Your task to perform on an android device: Do I have any events this weekend? Image 0: 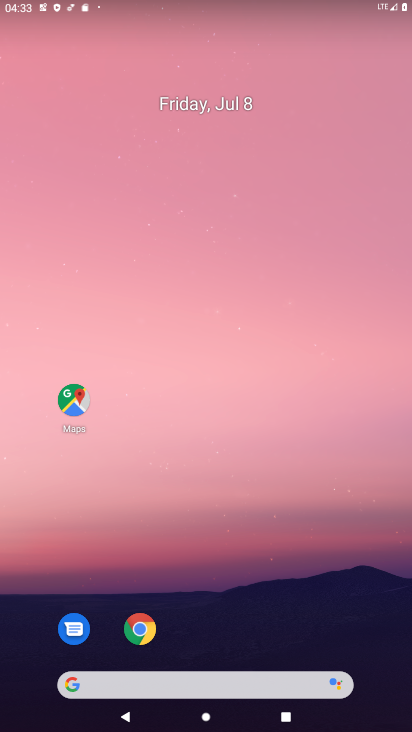
Step 0: drag from (241, 727) to (241, 175)
Your task to perform on an android device: Do I have any events this weekend? Image 1: 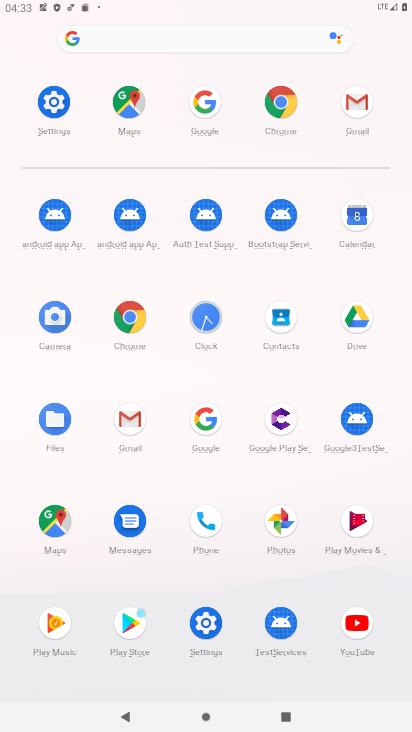
Step 1: click (358, 218)
Your task to perform on an android device: Do I have any events this weekend? Image 2: 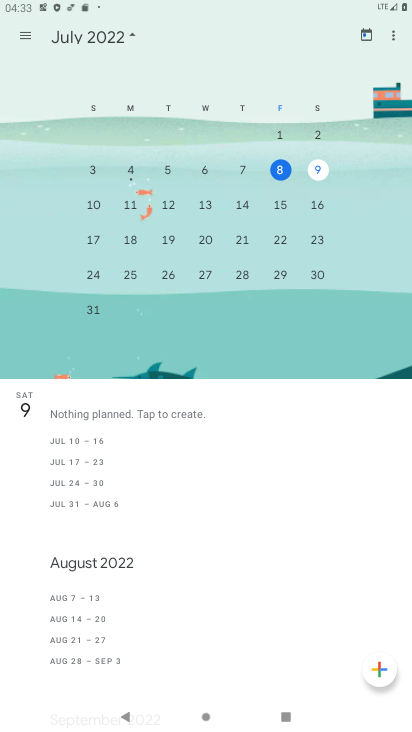
Step 2: click (22, 34)
Your task to perform on an android device: Do I have any events this weekend? Image 3: 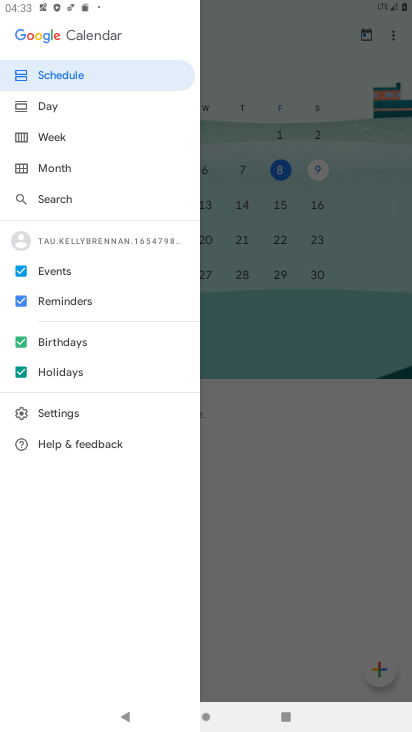
Step 3: click (20, 368)
Your task to perform on an android device: Do I have any events this weekend? Image 4: 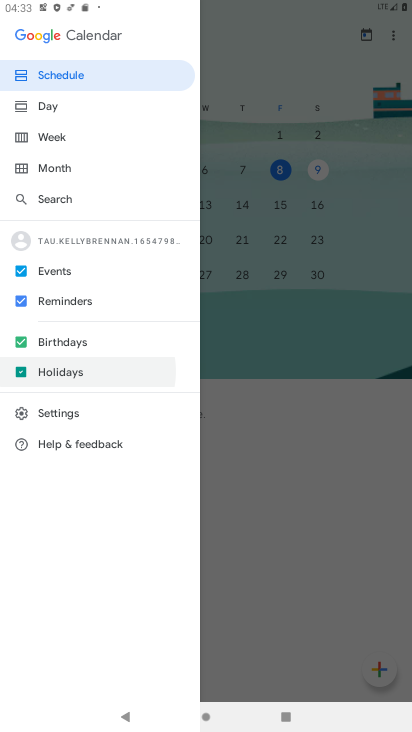
Step 4: click (23, 338)
Your task to perform on an android device: Do I have any events this weekend? Image 5: 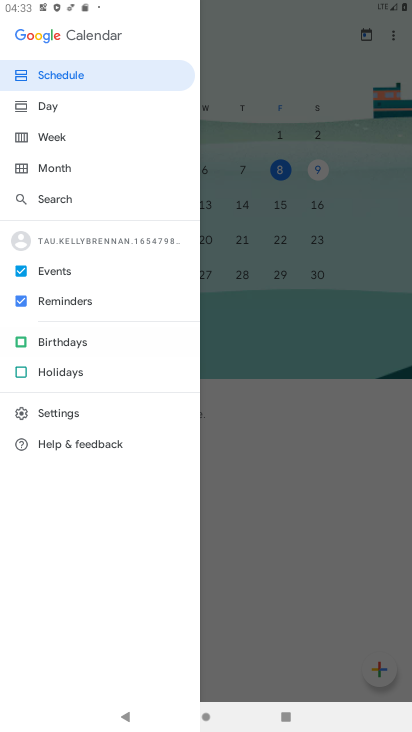
Step 5: click (21, 295)
Your task to perform on an android device: Do I have any events this weekend? Image 6: 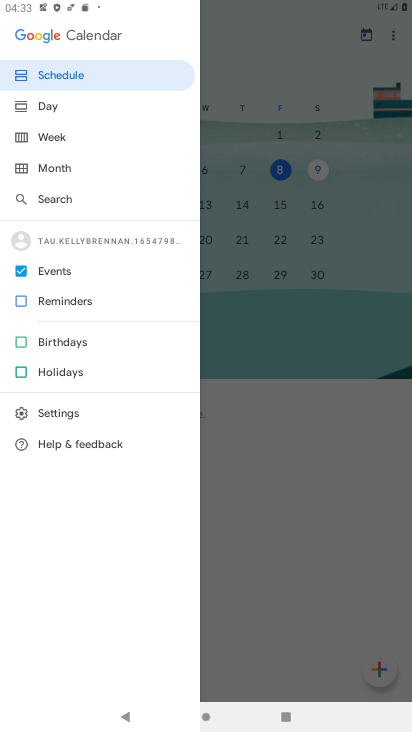
Step 6: click (55, 128)
Your task to perform on an android device: Do I have any events this weekend? Image 7: 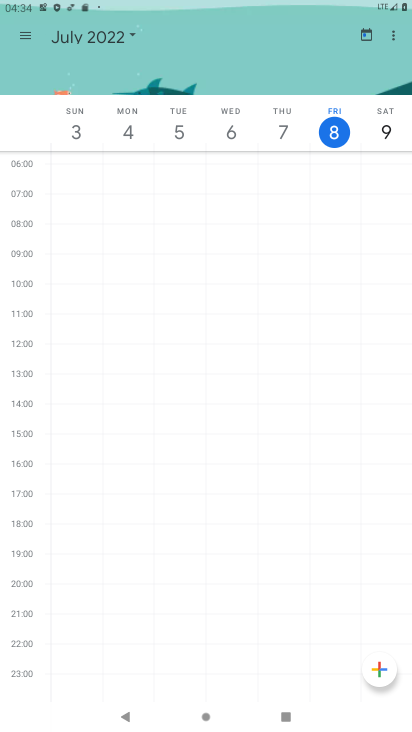
Step 7: click (387, 131)
Your task to perform on an android device: Do I have any events this weekend? Image 8: 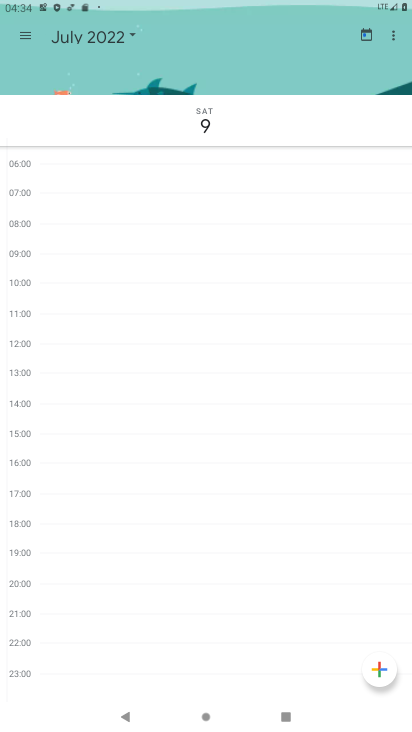
Step 8: click (385, 123)
Your task to perform on an android device: Do I have any events this weekend? Image 9: 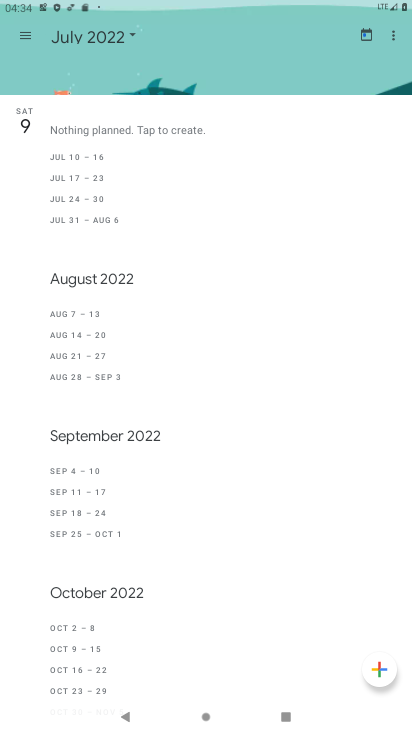
Step 9: task complete